Your task to perform on an android device: toggle pop-ups in chrome Image 0: 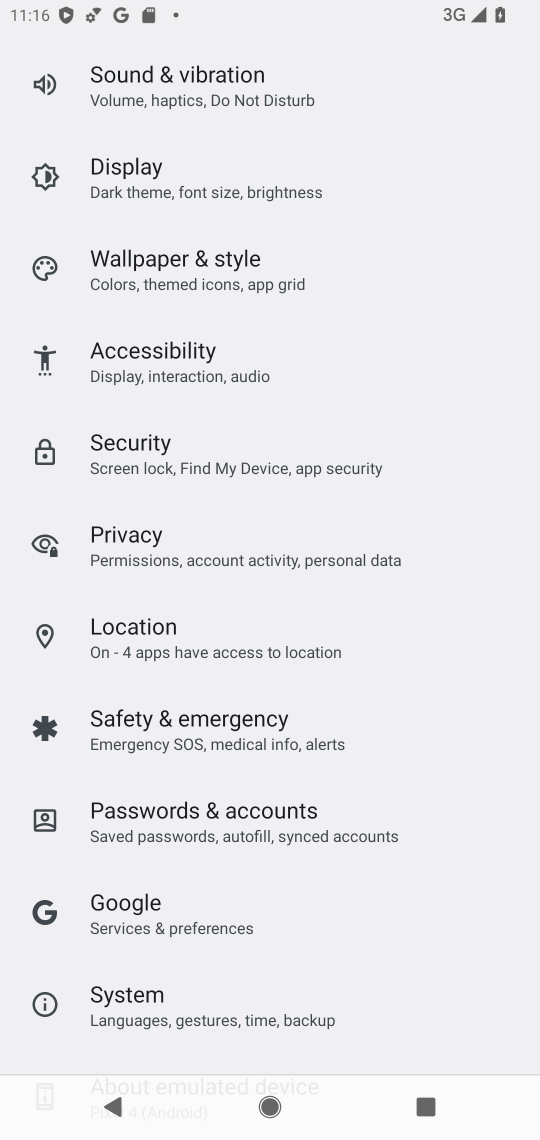
Step 0: press home button
Your task to perform on an android device: toggle pop-ups in chrome Image 1: 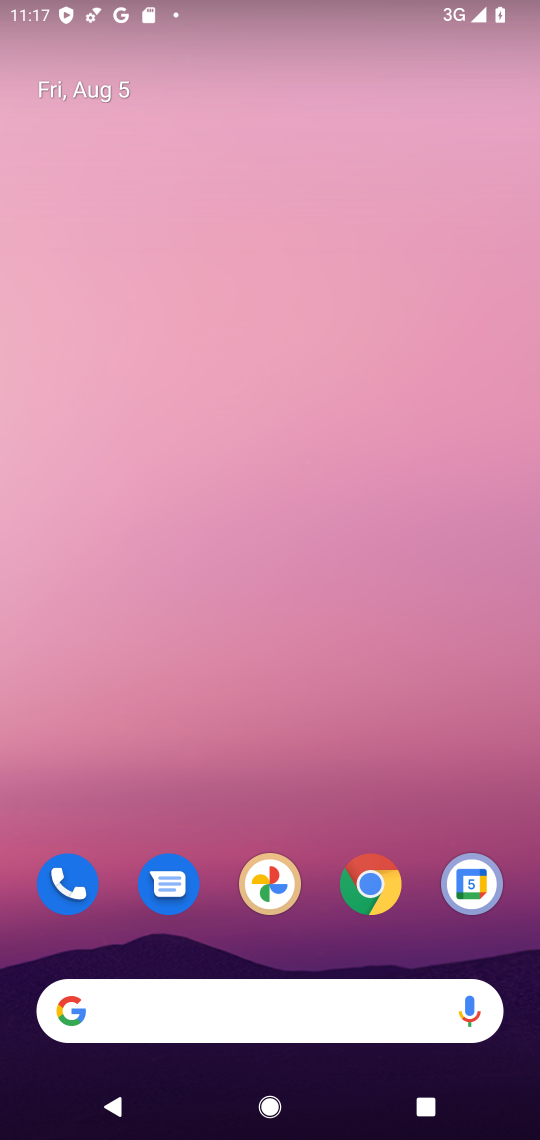
Step 1: click (366, 865)
Your task to perform on an android device: toggle pop-ups in chrome Image 2: 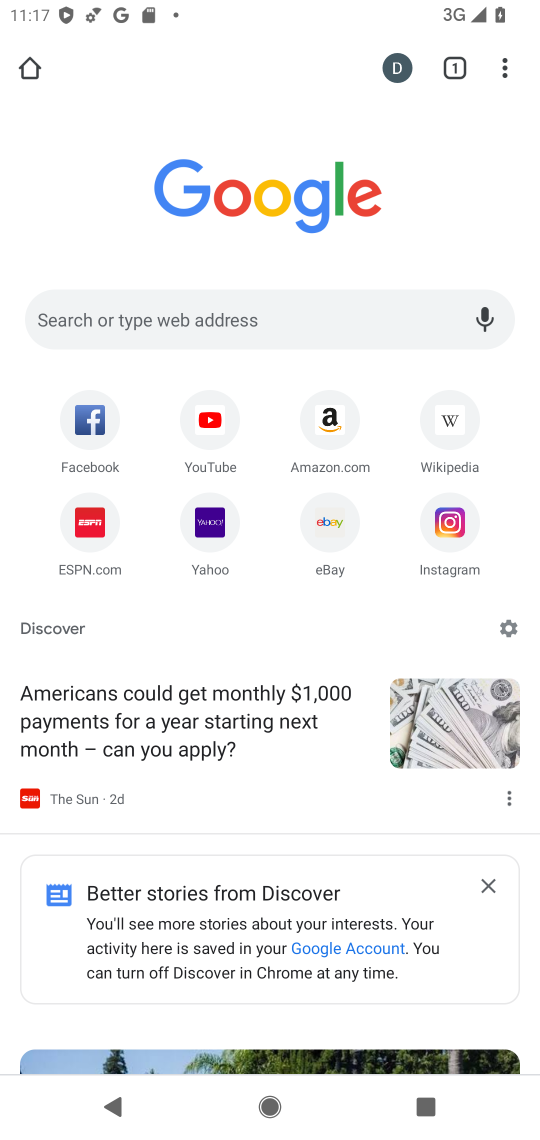
Step 2: click (499, 66)
Your task to perform on an android device: toggle pop-ups in chrome Image 3: 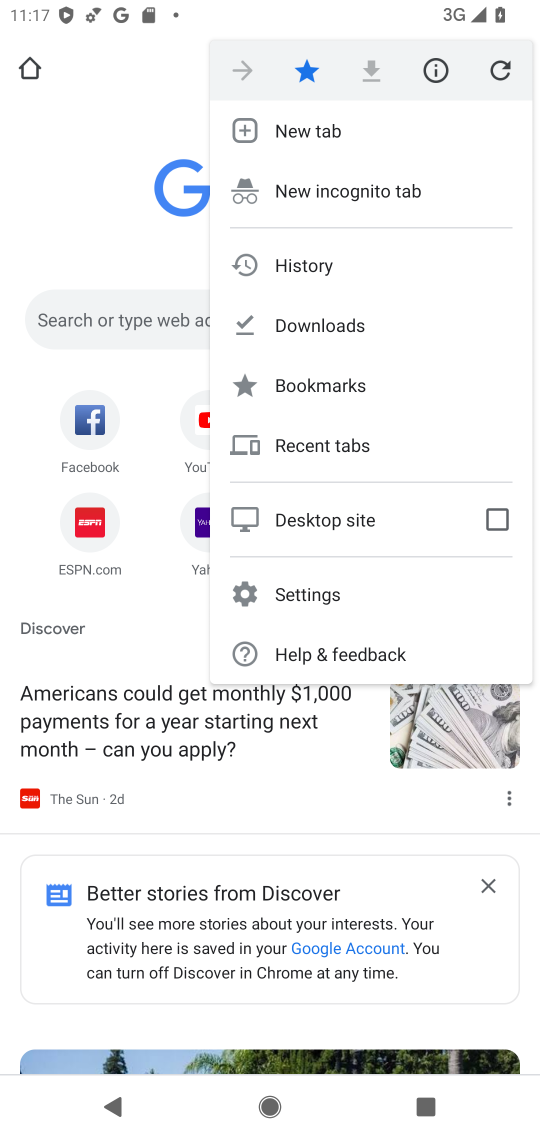
Step 3: click (323, 595)
Your task to perform on an android device: toggle pop-ups in chrome Image 4: 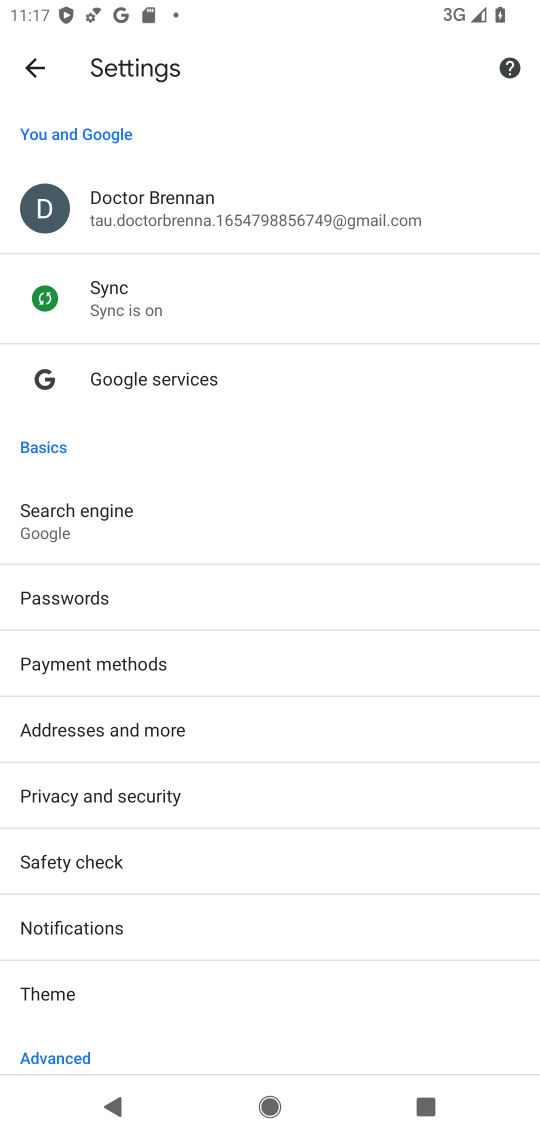
Step 4: drag from (178, 359) to (178, 255)
Your task to perform on an android device: toggle pop-ups in chrome Image 5: 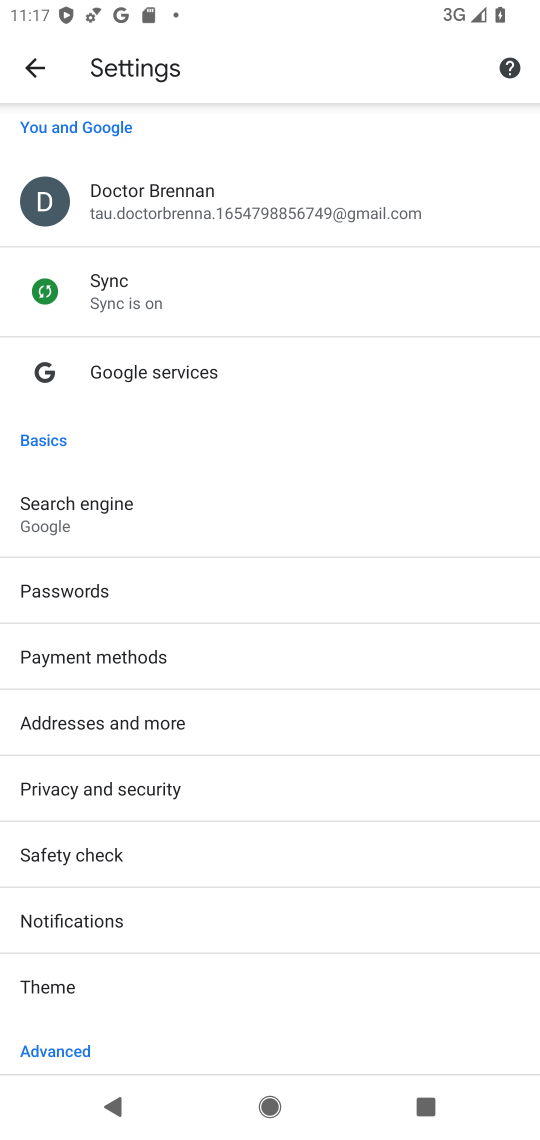
Step 5: drag from (330, 886) to (329, 351)
Your task to perform on an android device: toggle pop-ups in chrome Image 6: 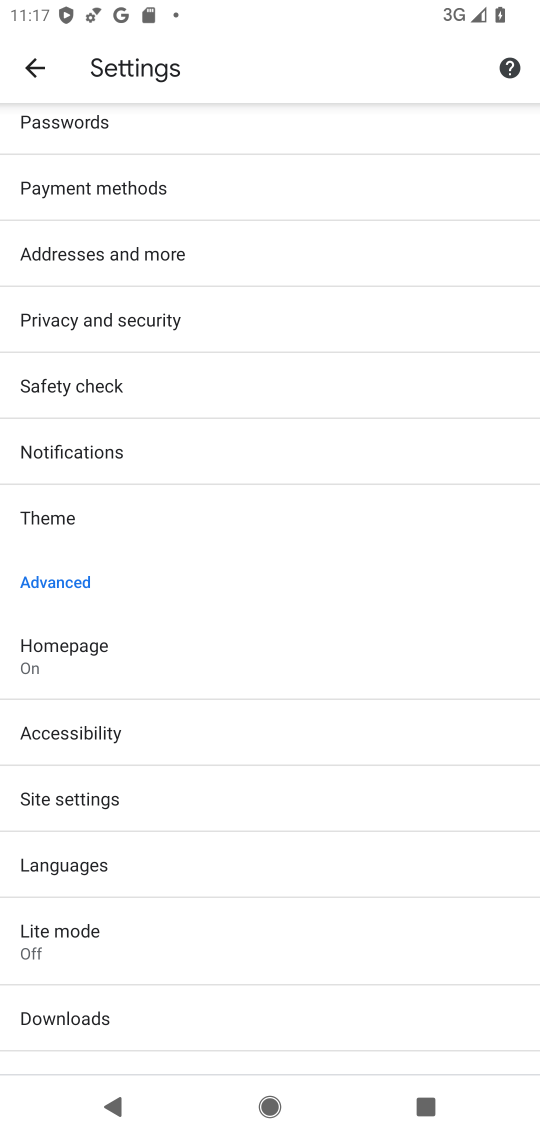
Step 6: click (186, 789)
Your task to perform on an android device: toggle pop-ups in chrome Image 7: 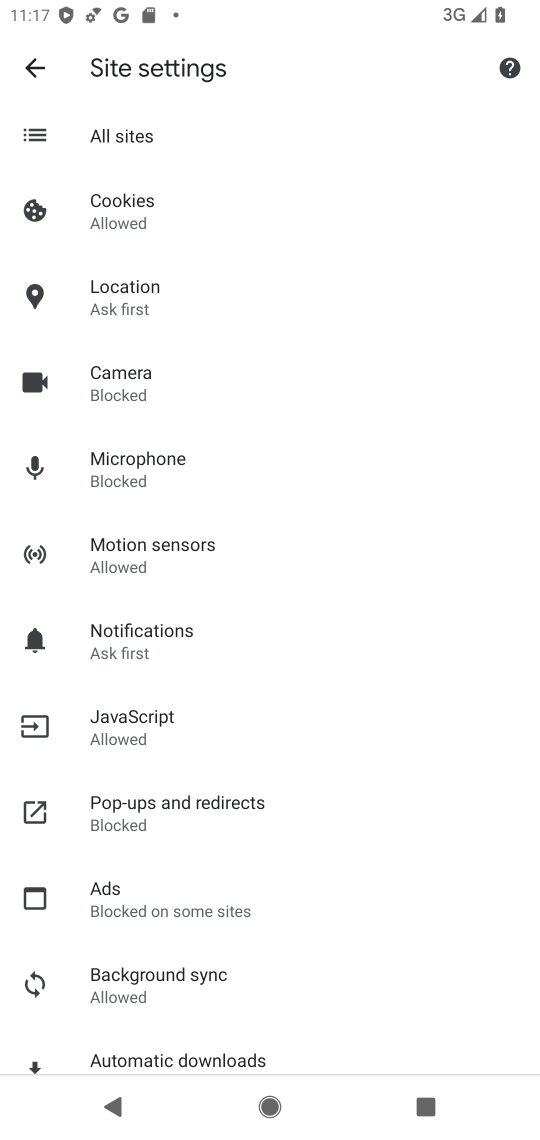
Step 7: click (186, 811)
Your task to perform on an android device: toggle pop-ups in chrome Image 8: 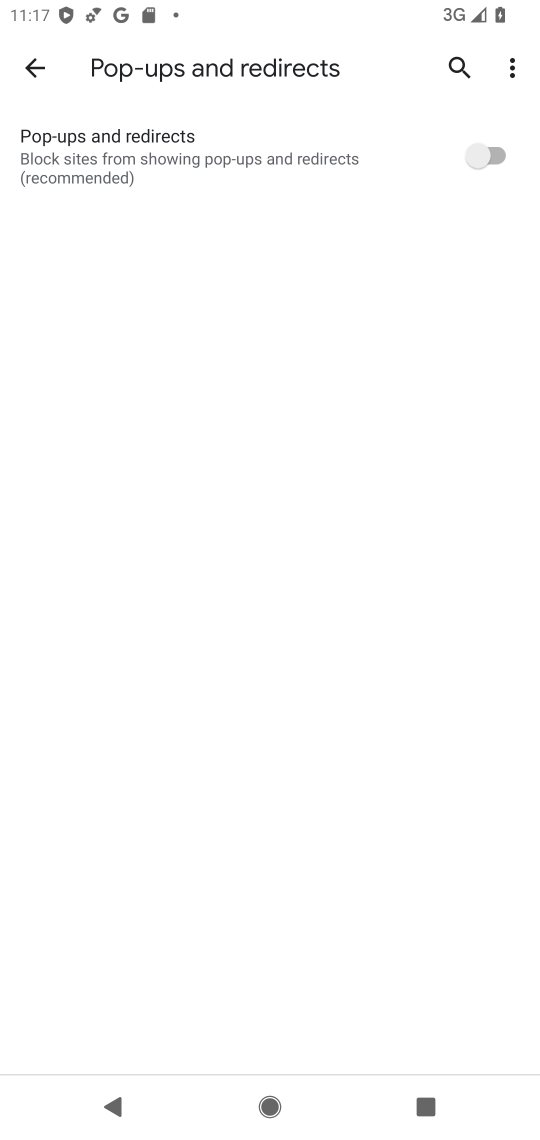
Step 8: click (492, 139)
Your task to perform on an android device: toggle pop-ups in chrome Image 9: 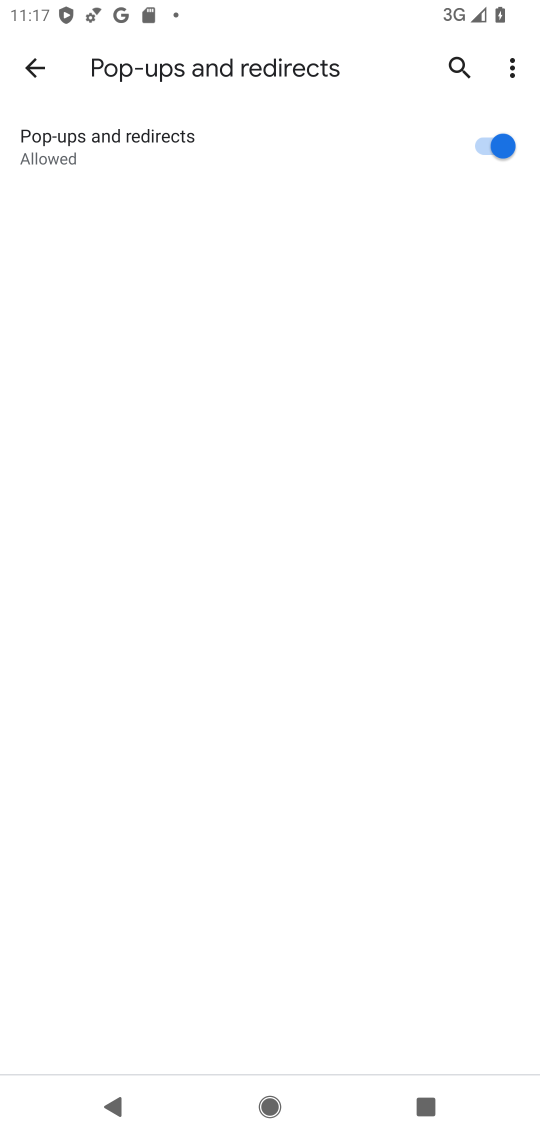
Step 9: task complete